Your task to perform on an android device: Open the map Image 0: 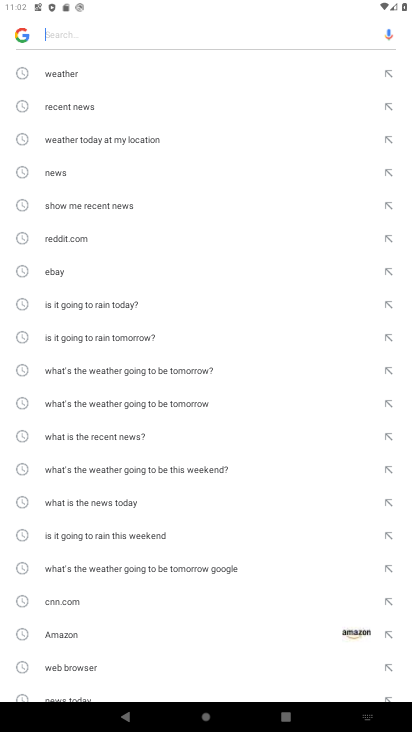
Step 0: press back button
Your task to perform on an android device: Open the map Image 1: 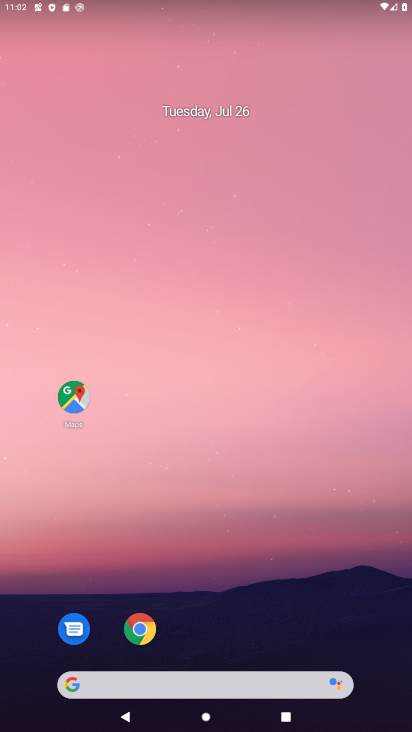
Step 1: click (89, 417)
Your task to perform on an android device: Open the map Image 2: 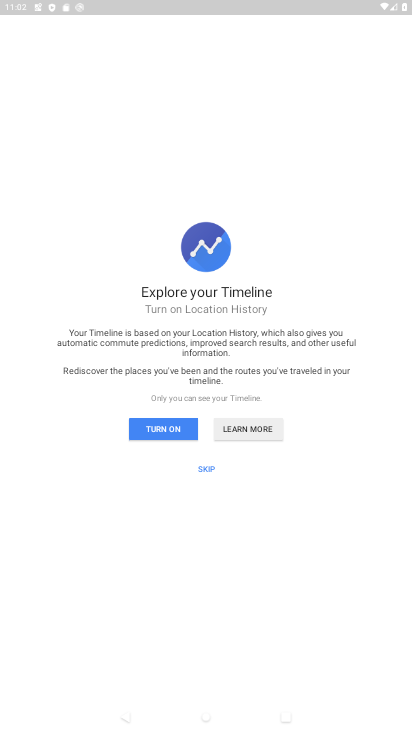
Step 2: click (207, 467)
Your task to perform on an android device: Open the map Image 3: 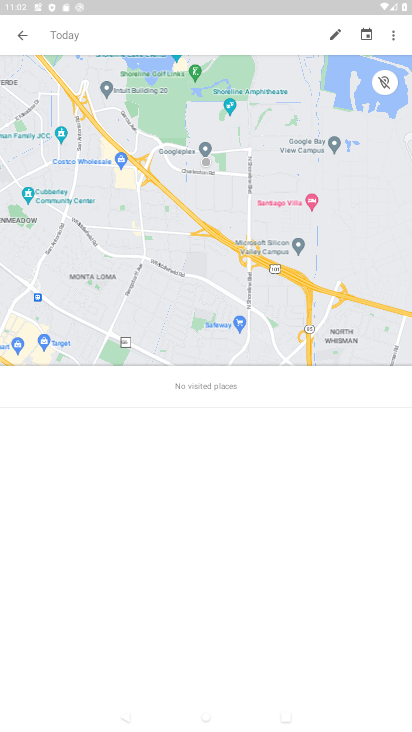
Step 3: task complete